Your task to perform on an android device: check android version Image 0: 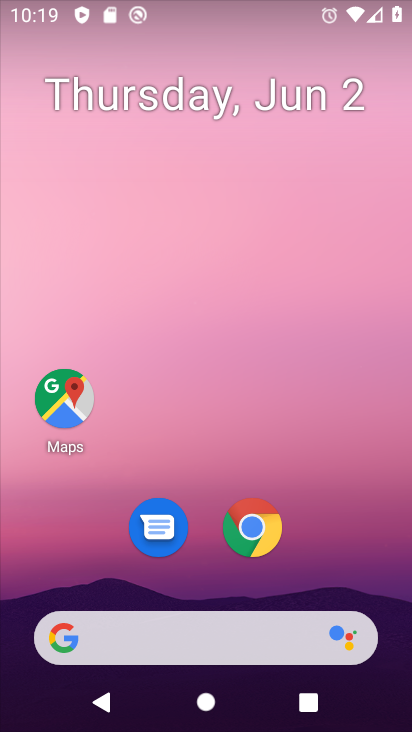
Step 0: drag from (200, 615) to (196, 2)
Your task to perform on an android device: check android version Image 1: 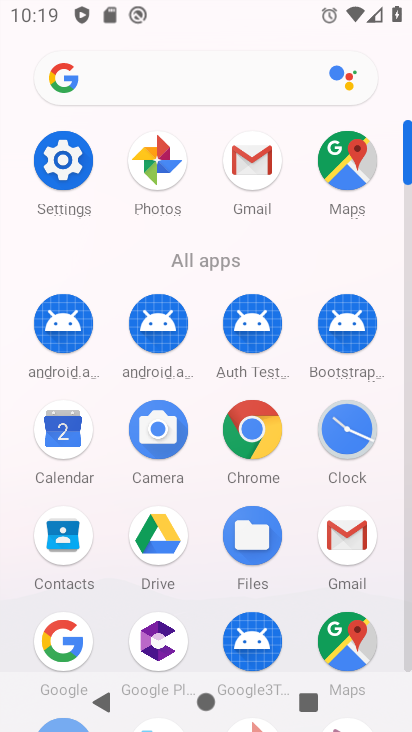
Step 1: click (64, 152)
Your task to perform on an android device: check android version Image 2: 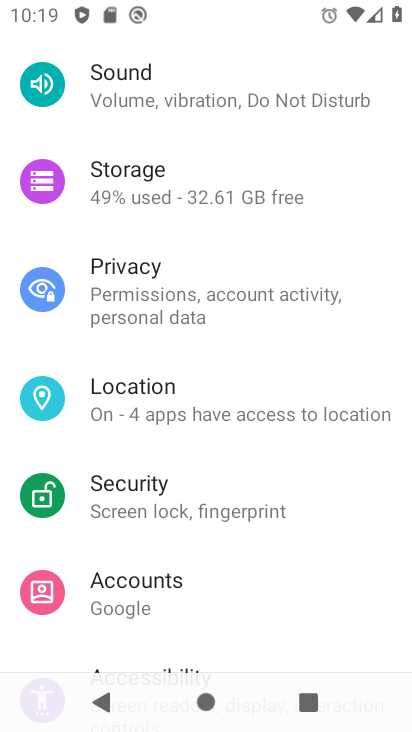
Step 2: drag from (90, 543) to (20, 11)
Your task to perform on an android device: check android version Image 3: 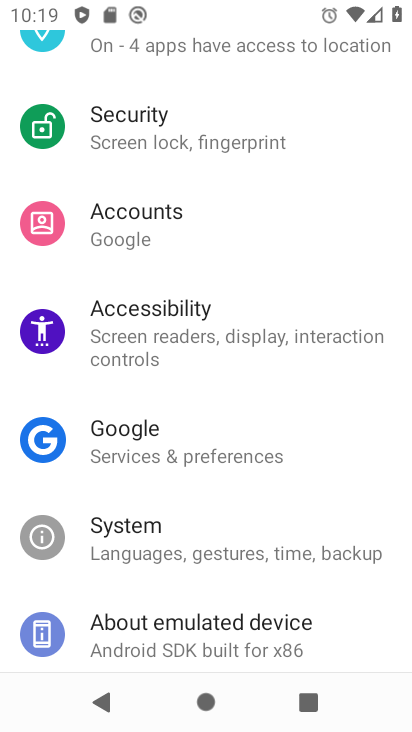
Step 3: click (164, 626)
Your task to perform on an android device: check android version Image 4: 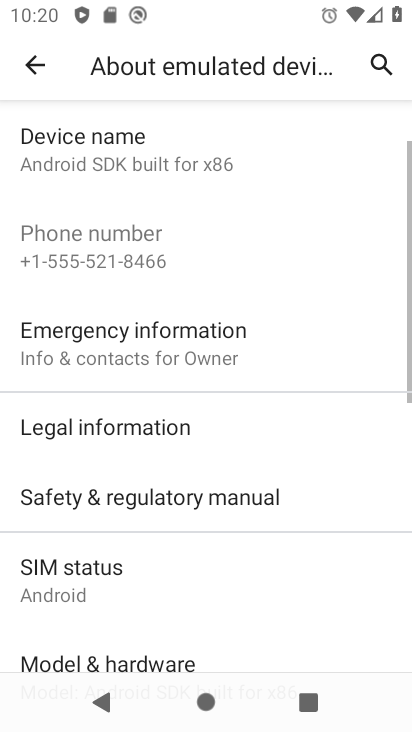
Step 4: drag from (68, 543) to (65, 87)
Your task to perform on an android device: check android version Image 5: 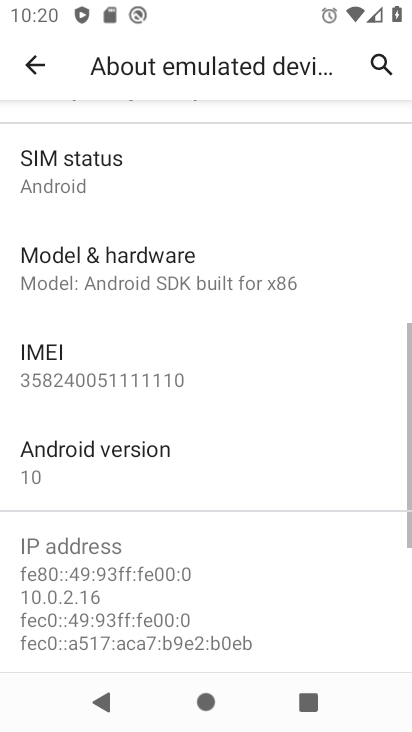
Step 5: click (77, 448)
Your task to perform on an android device: check android version Image 6: 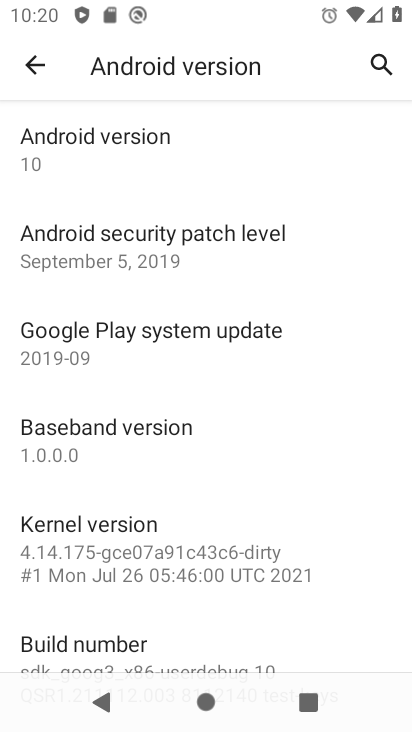
Step 6: task complete